Your task to perform on an android device: Open the web browser Image 0: 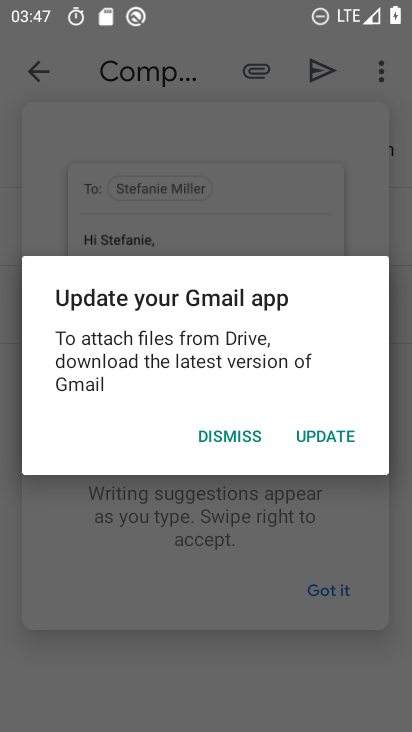
Step 0: press home button
Your task to perform on an android device: Open the web browser Image 1: 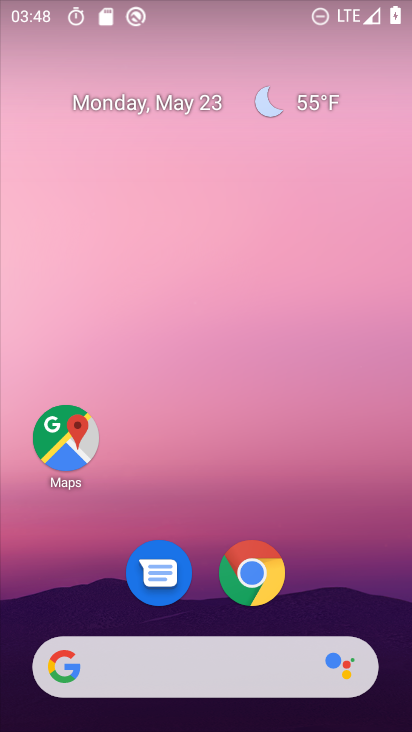
Step 1: click (250, 569)
Your task to perform on an android device: Open the web browser Image 2: 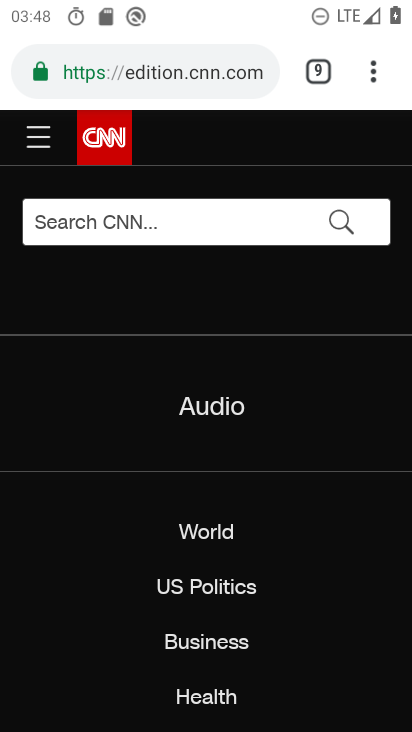
Step 2: task complete